Your task to perform on an android device: Open the phone app and click the voicemail tab. Image 0: 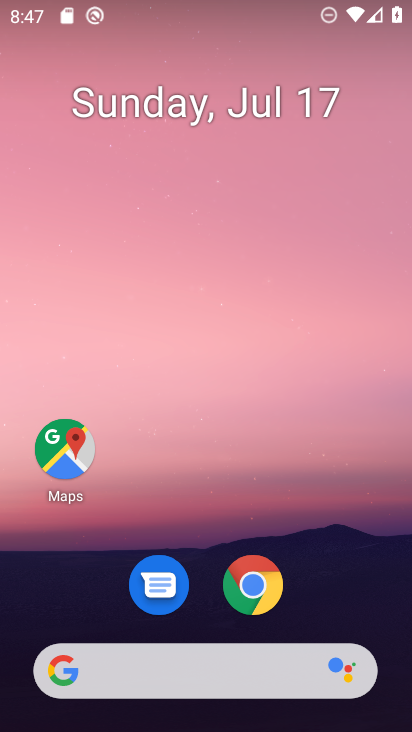
Step 0: press home button
Your task to perform on an android device: Open the phone app and click the voicemail tab. Image 1: 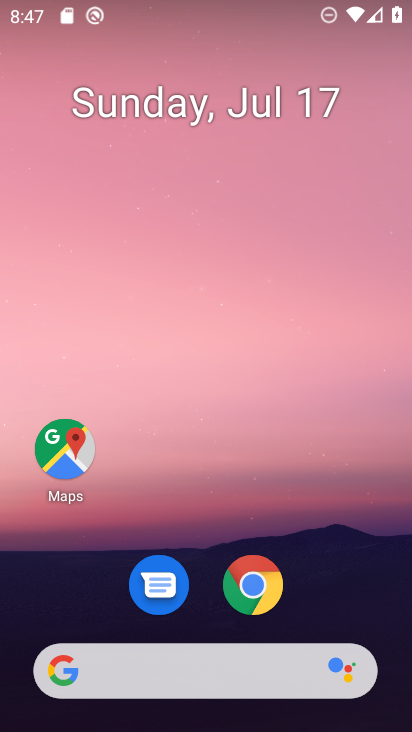
Step 1: drag from (202, 671) to (331, 120)
Your task to perform on an android device: Open the phone app and click the voicemail tab. Image 2: 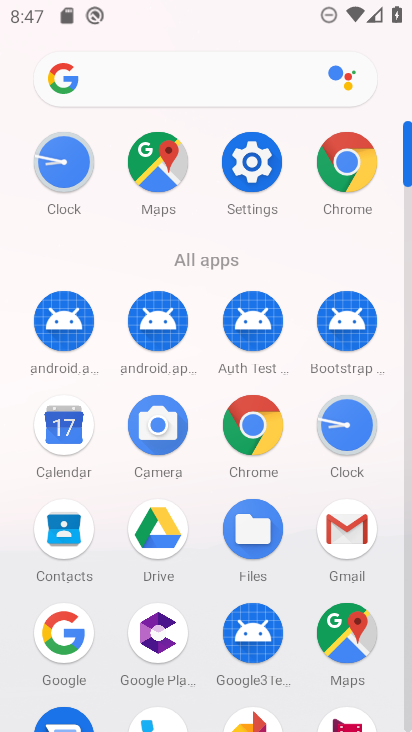
Step 2: drag from (209, 626) to (296, 161)
Your task to perform on an android device: Open the phone app and click the voicemail tab. Image 3: 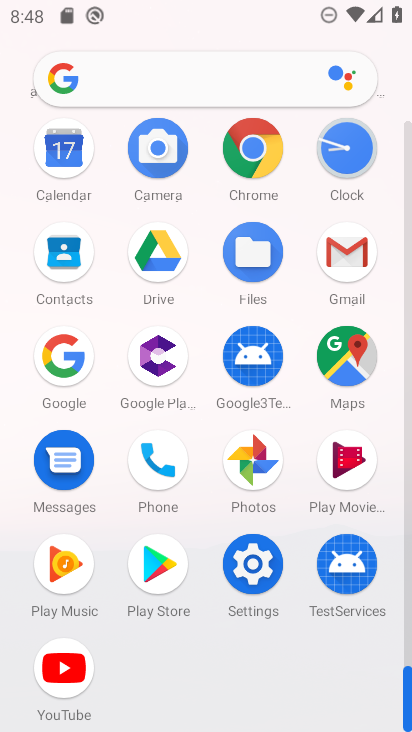
Step 3: click (153, 465)
Your task to perform on an android device: Open the phone app and click the voicemail tab. Image 4: 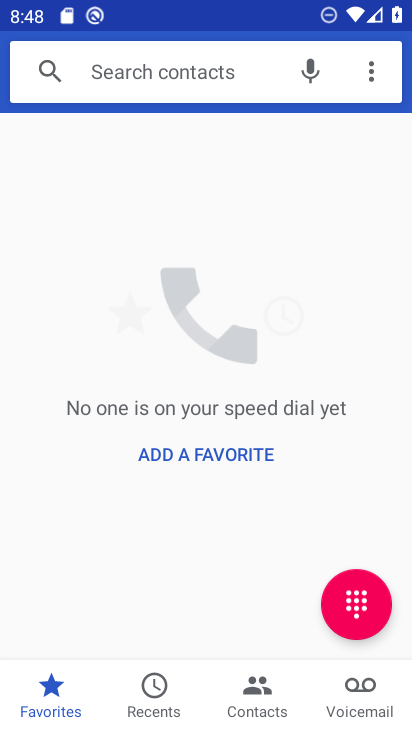
Step 4: click (351, 700)
Your task to perform on an android device: Open the phone app and click the voicemail tab. Image 5: 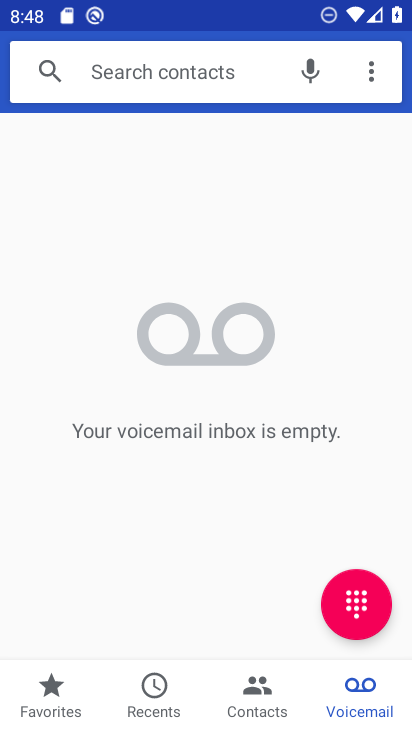
Step 5: task complete